Your task to perform on an android device: install app "Cash App" Image 0: 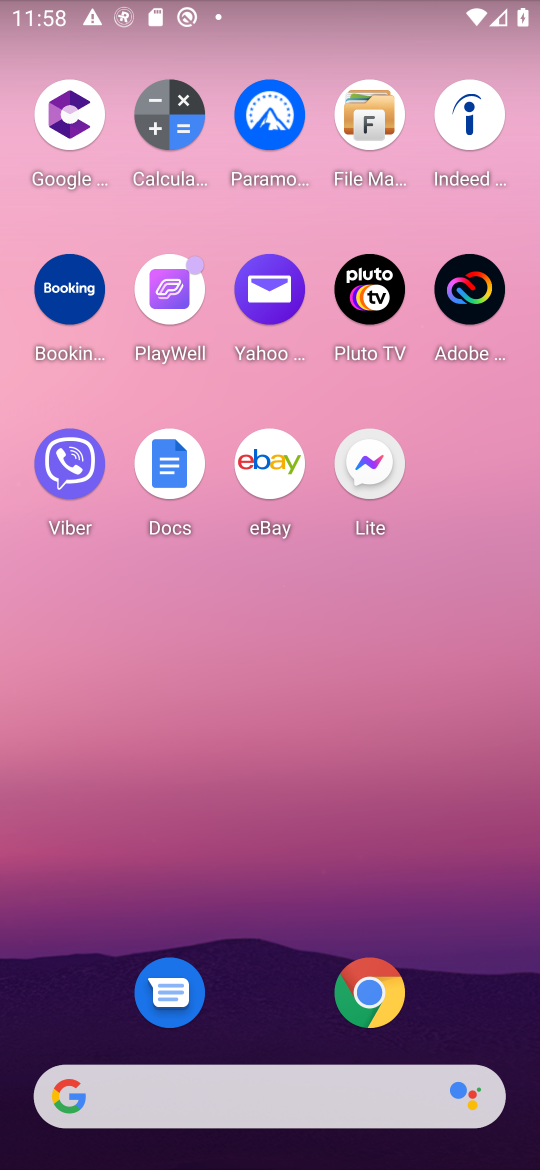
Step 0: press home button
Your task to perform on an android device: install app "Cash App" Image 1: 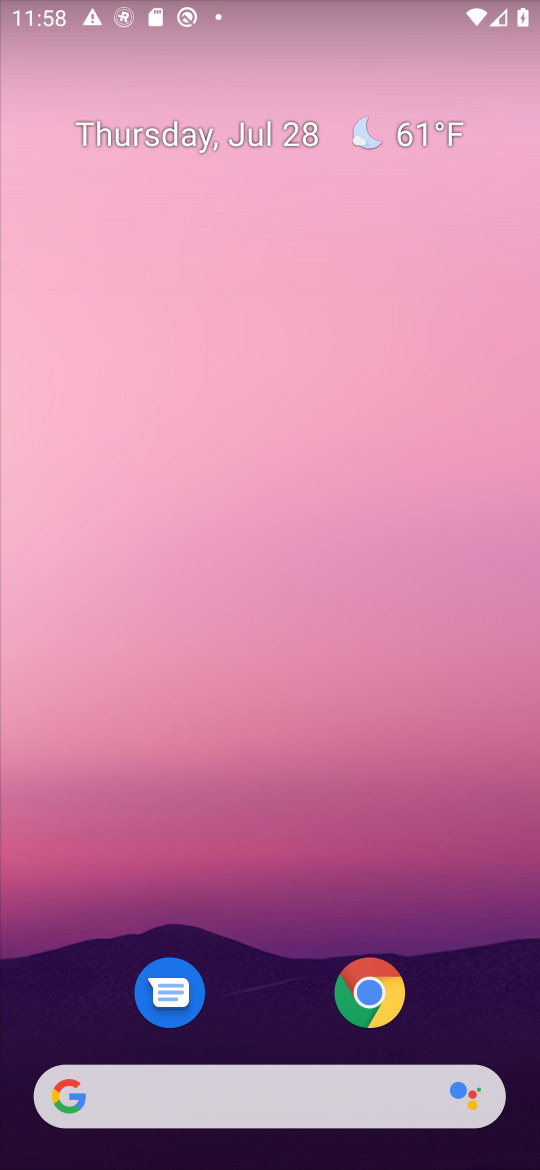
Step 1: drag from (243, 1104) to (279, 21)
Your task to perform on an android device: install app "Cash App" Image 2: 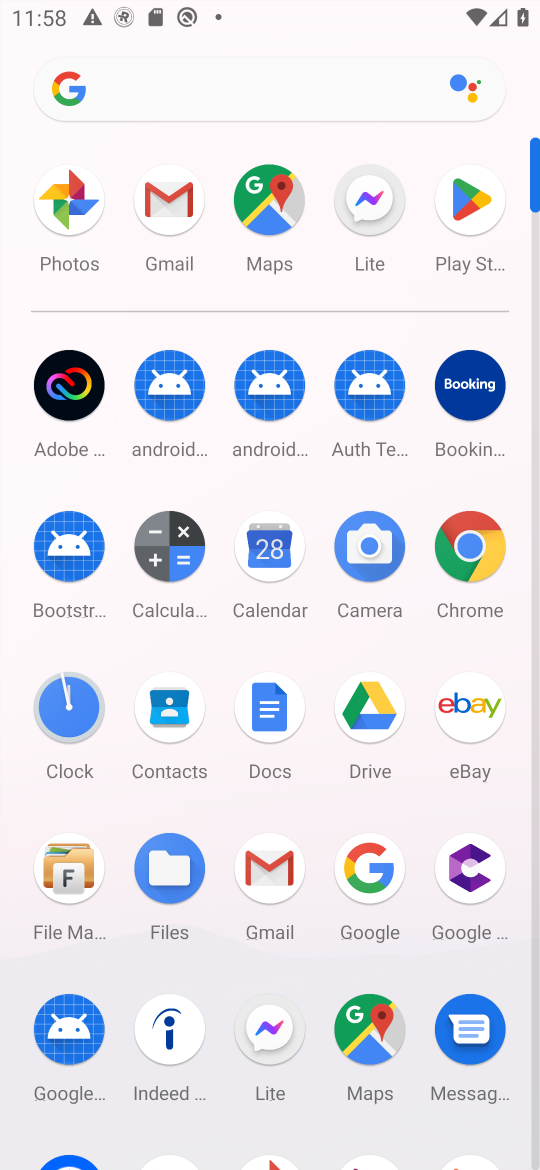
Step 2: click (474, 198)
Your task to perform on an android device: install app "Cash App" Image 3: 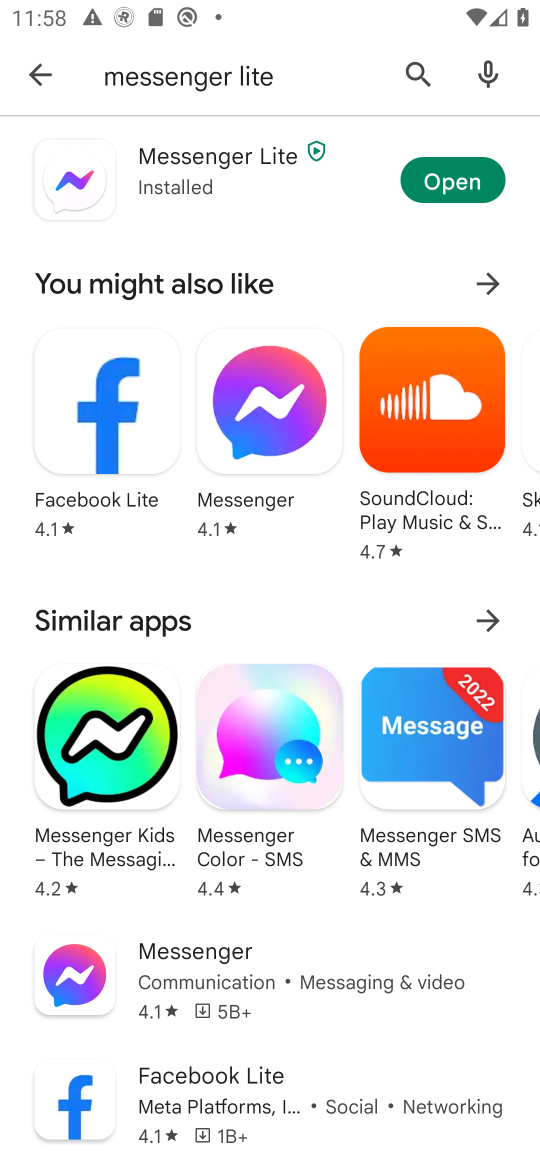
Step 3: click (419, 68)
Your task to perform on an android device: install app "Cash App" Image 4: 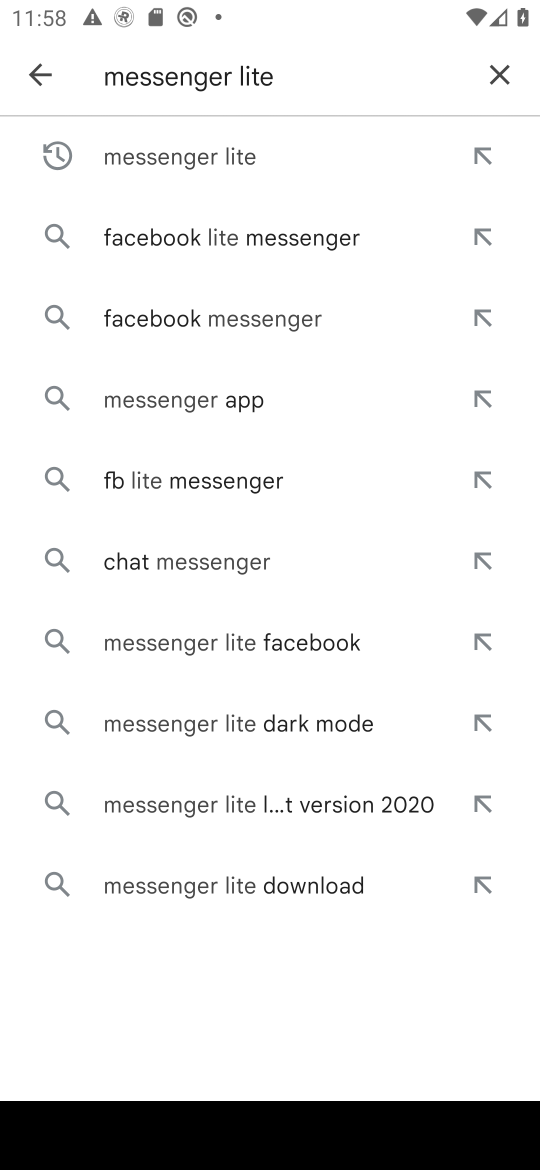
Step 4: click (502, 75)
Your task to perform on an android device: install app "Cash App" Image 5: 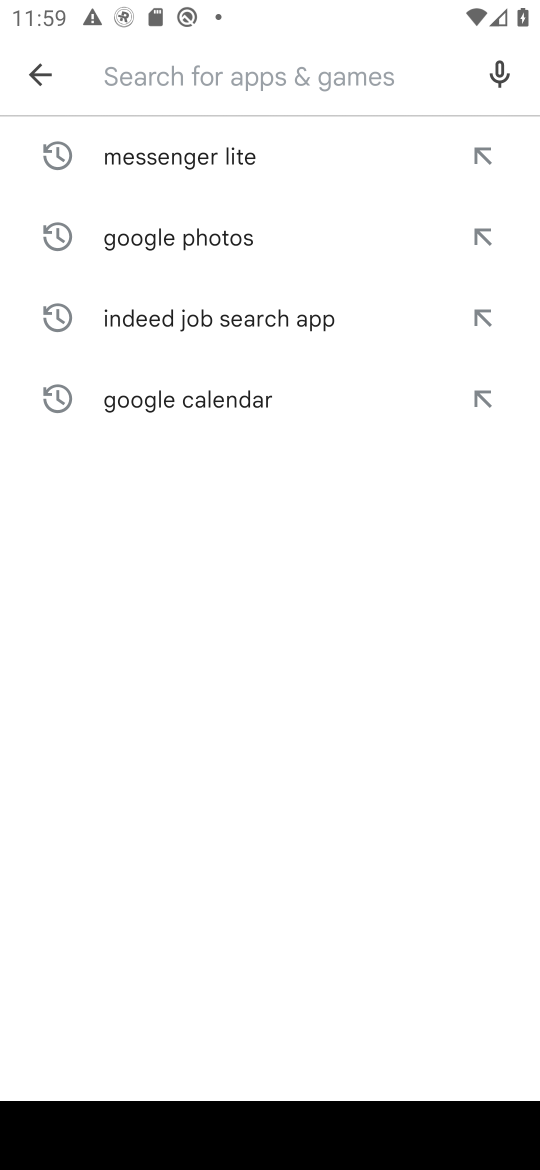
Step 5: type "Cash App"
Your task to perform on an android device: install app "Cash App" Image 6: 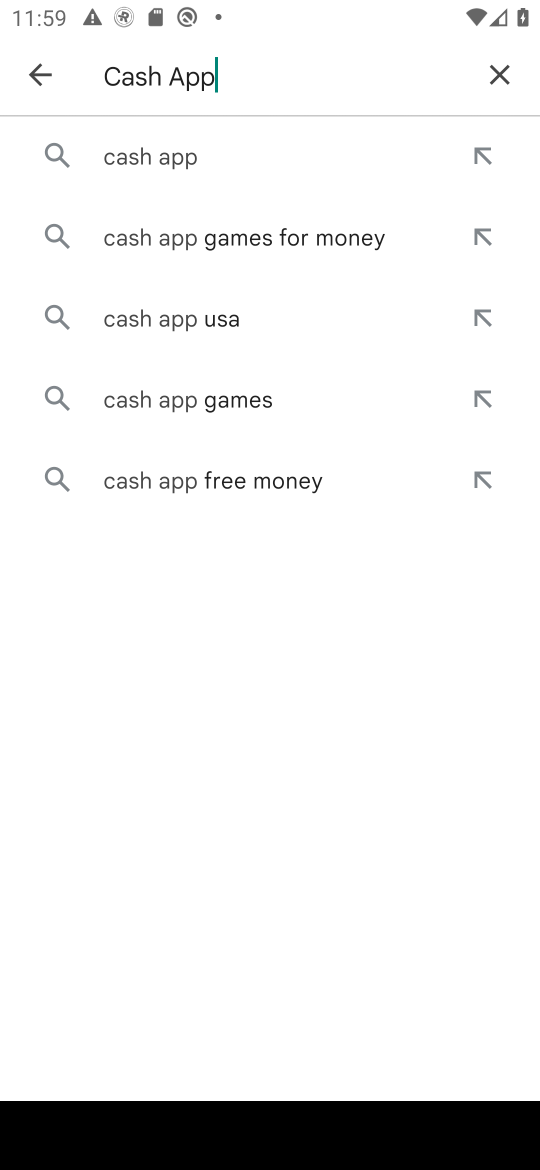
Step 6: click (155, 154)
Your task to perform on an android device: install app "Cash App" Image 7: 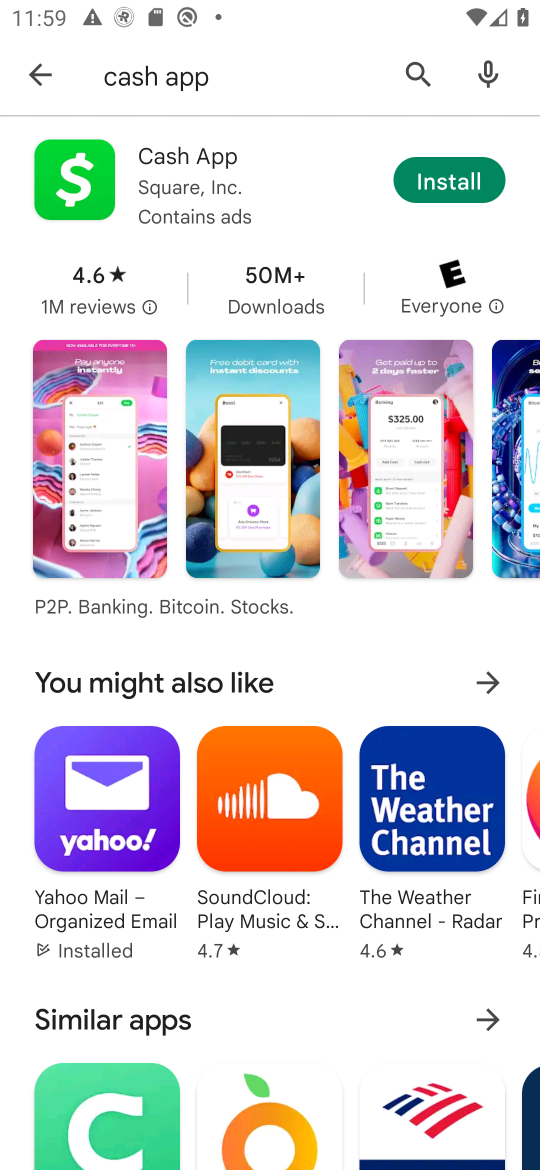
Step 7: click (478, 173)
Your task to perform on an android device: install app "Cash App" Image 8: 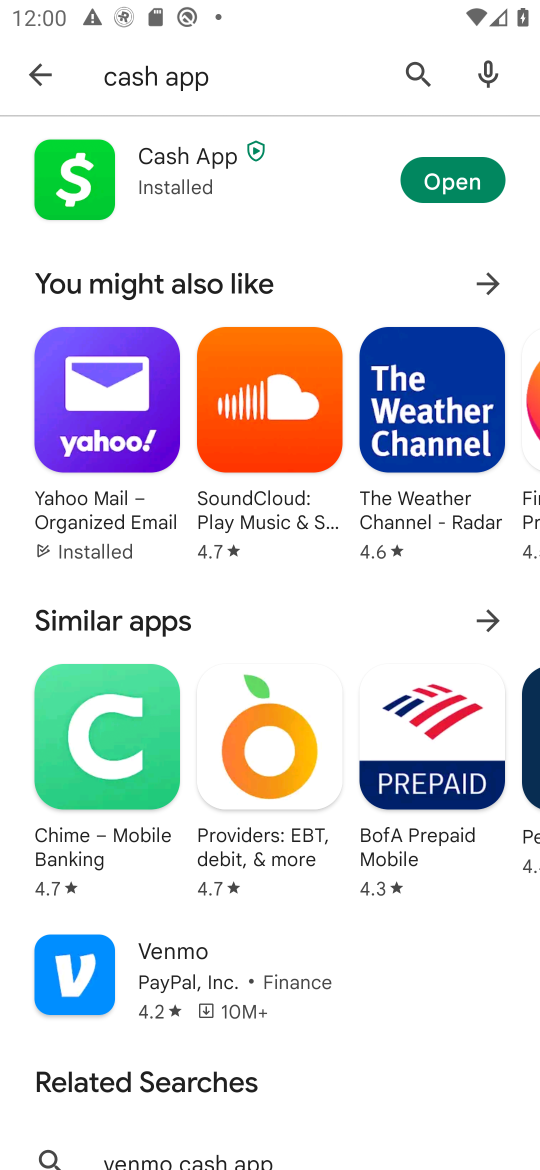
Step 8: task complete